Your task to perform on an android device: Is it going to rain today? Image 0: 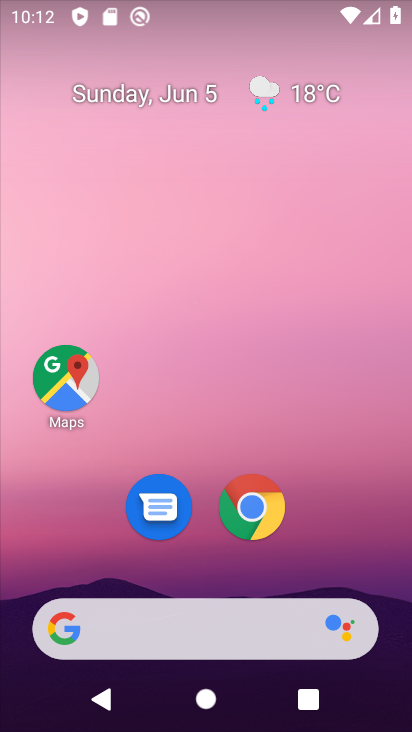
Step 0: click (197, 620)
Your task to perform on an android device: Is it going to rain today? Image 1: 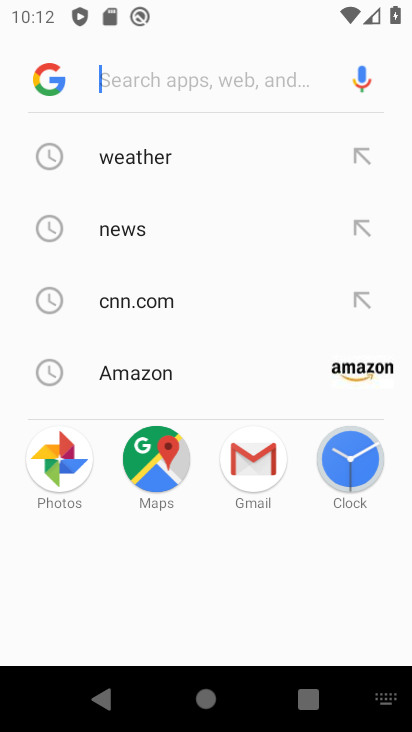
Step 1: type "Is it going to rain today?"
Your task to perform on an android device: Is it going to rain today? Image 2: 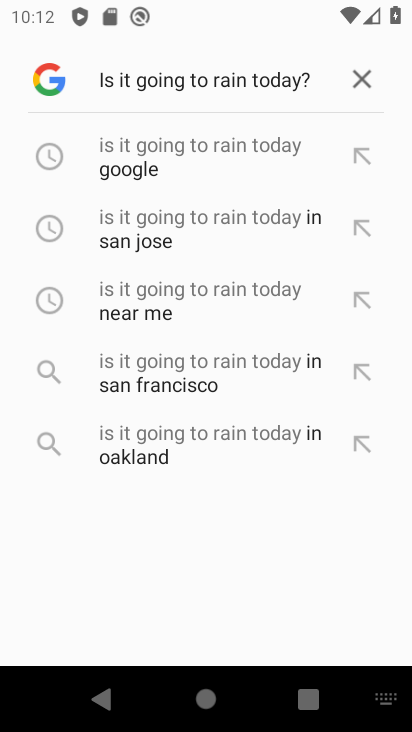
Step 2: click (240, 165)
Your task to perform on an android device: Is it going to rain today? Image 3: 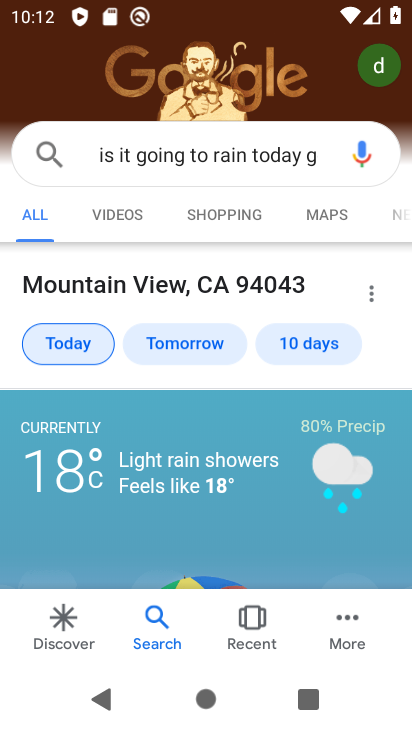
Step 3: task complete